Your task to perform on an android device: turn on translation in the chrome app Image 0: 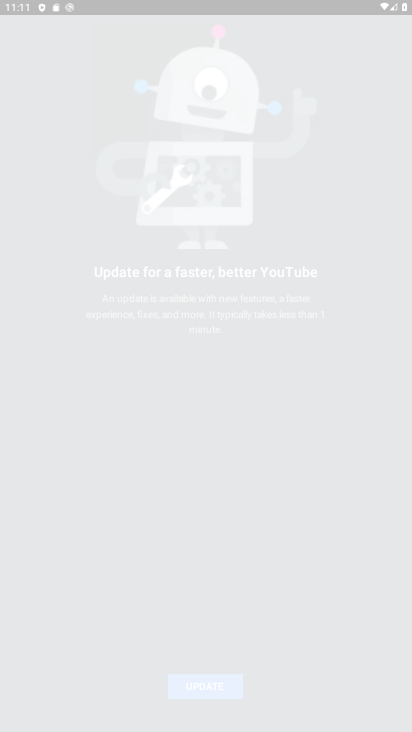
Step 0: drag from (301, 674) to (266, 209)
Your task to perform on an android device: turn on translation in the chrome app Image 1: 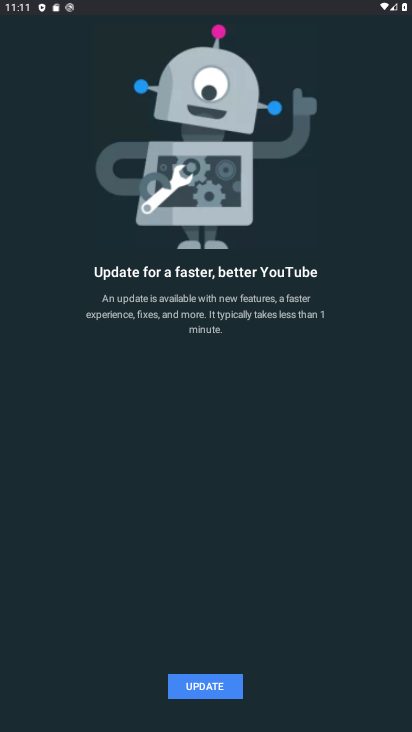
Step 1: press home button
Your task to perform on an android device: turn on translation in the chrome app Image 2: 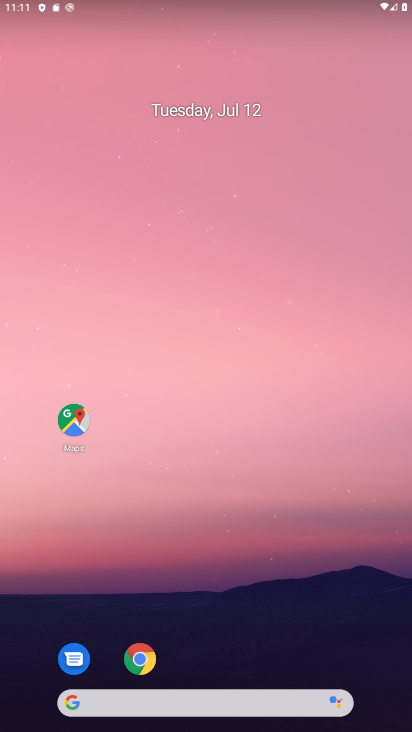
Step 2: drag from (257, 558) to (358, 7)
Your task to perform on an android device: turn on translation in the chrome app Image 3: 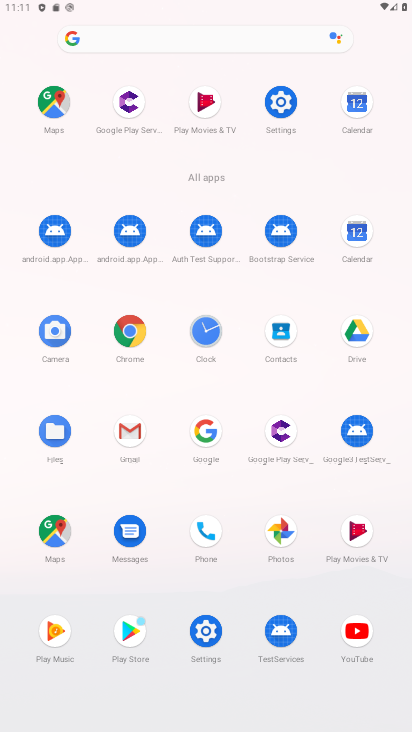
Step 3: click (117, 323)
Your task to perform on an android device: turn on translation in the chrome app Image 4: 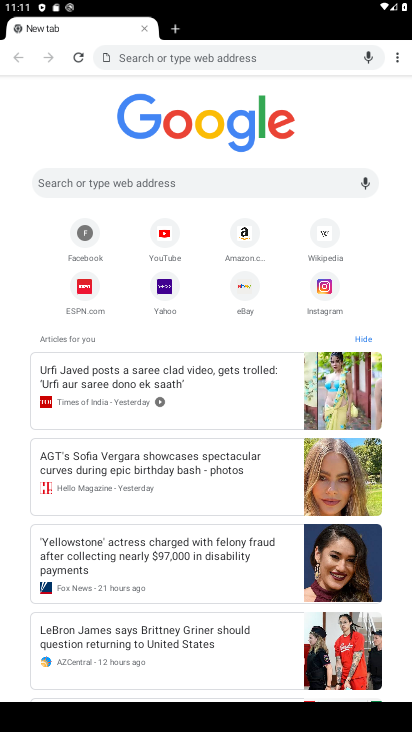
Step 4: drag from (396, 55) to (320, 269)
Your task to perform on an android device: turn on translation in the chrome app Image 5: 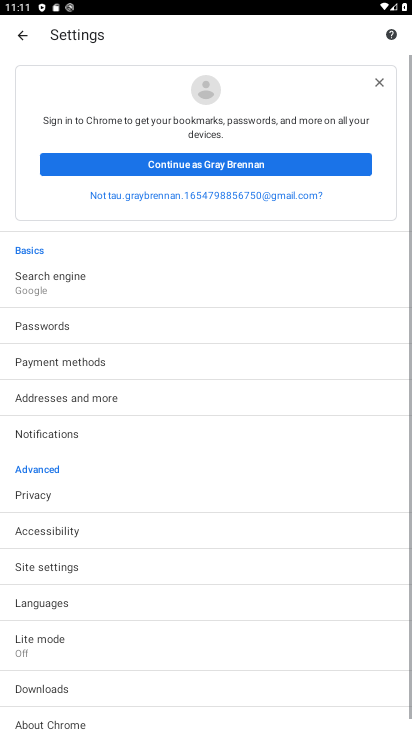
Step 5: drag from (173, 678) to (235, 372)
Your task to perform on an android device: turn on translation in the chrome app Image 6: 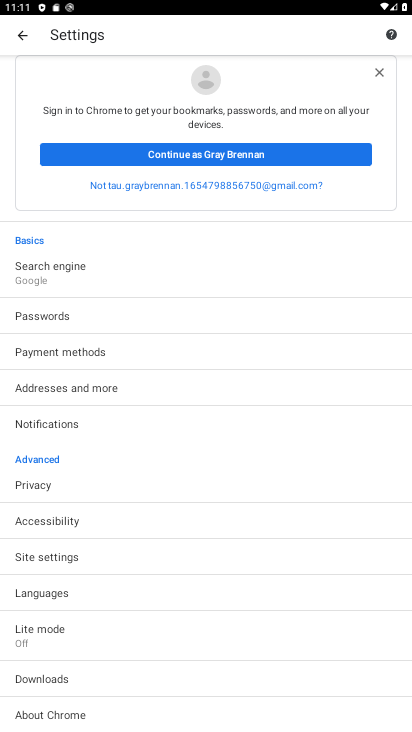
Step 6: click (107, 594)
Your task to perform on an android device: turn on translation in the chrome app Image 7: 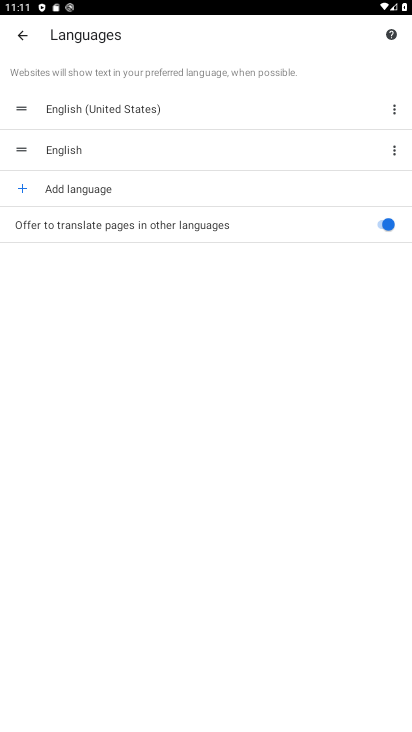
Step 7: task complete